Your task to perform on an android device: Open Maps and search for coffee Image 0: 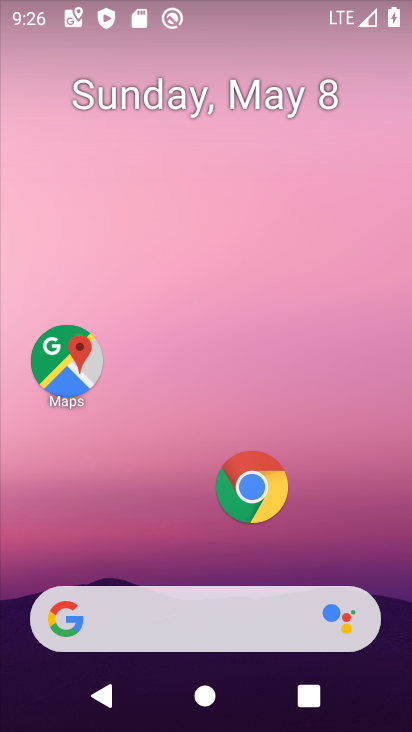
Step 0: click (65, 356)
Your task to perform on an android device: Open Maps and search for coffee Image 1: 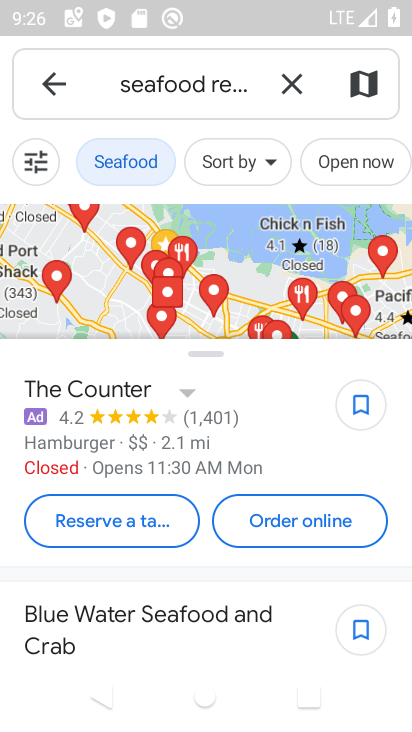
Step 1: click (289, 78)
Your task to perform on an android device: Open Maps and search for coffee Image 2: 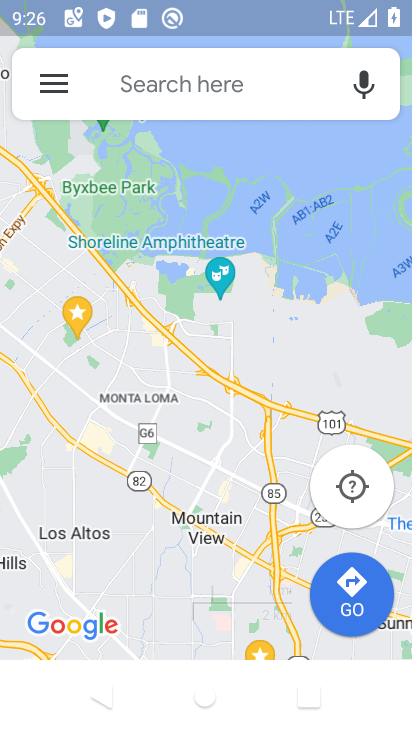
Step 2: click (274, 91)
Your task to perform on an android device: Open Maps and search for coffee Image 3: 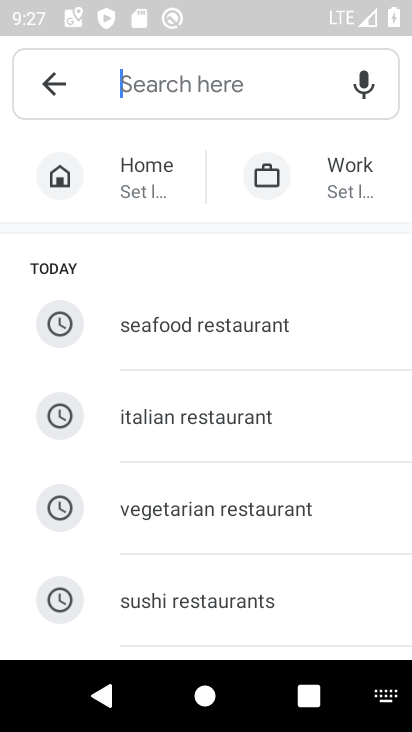
Step 3: drag from (299, 574) to (296, 143)
Your task to perform on an android device: Open Maps and search for coffee Image 4: 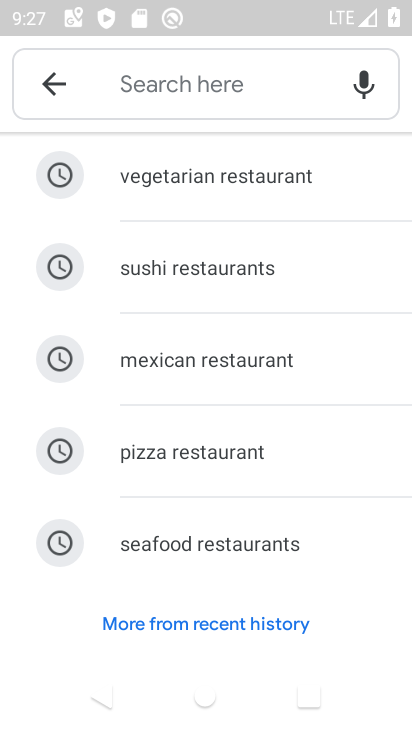
Step 4: click (231, 79)
Your task to perform on an android device: Open Maps and search for coffee Image 5: 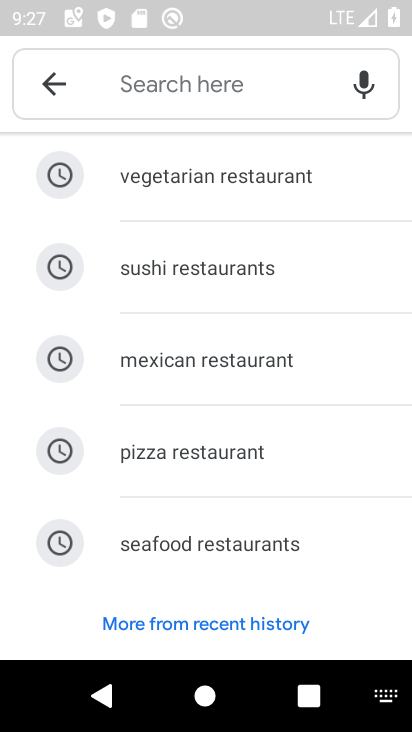
Step 5: type "coffee"
Your task to perform on an android device: Open Maps and search for coffee Image 6: 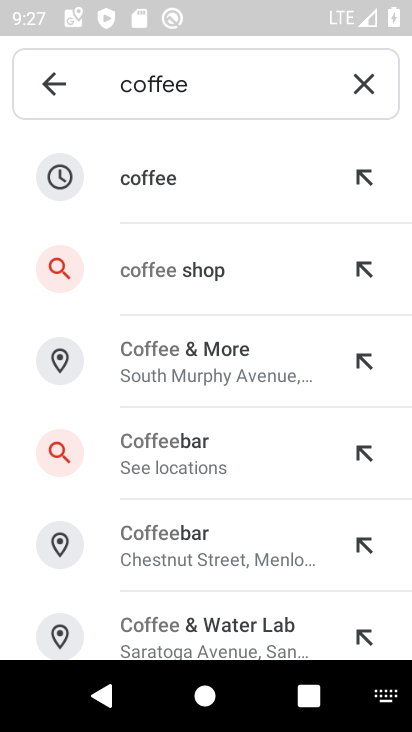
Step 6: click (168, 174)
Your task to perform on an android device: Open Maps and search for coffee Image 7: 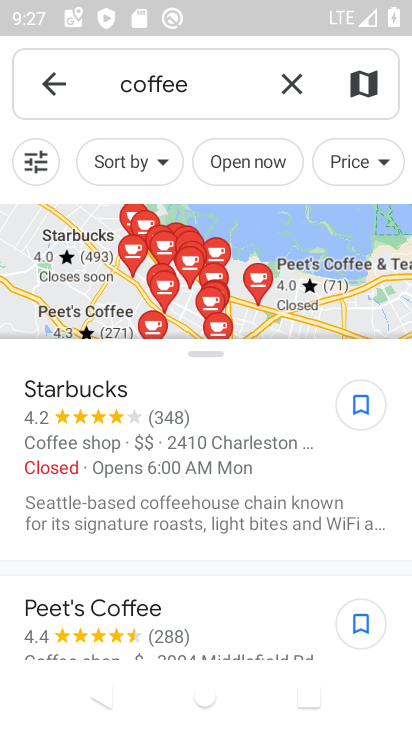
Step 7: task complete